Your task to perform on an android device: Go to wifi settings Image 0: 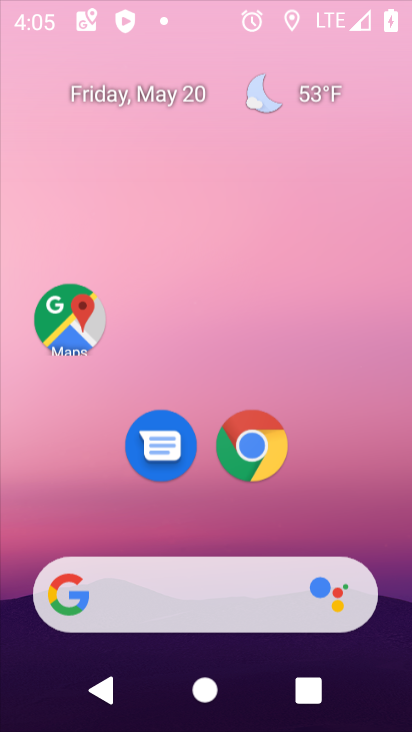
Step 0: click (272, 439)
Your task to perform on an android device: Go to wifi settings Image 1: 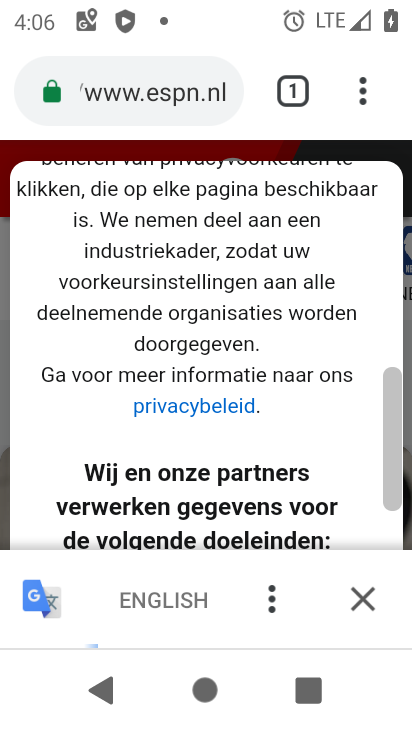
Step 1: click (365, 91)
Your task to perform on an android device: Go to wifi settings Image 2: 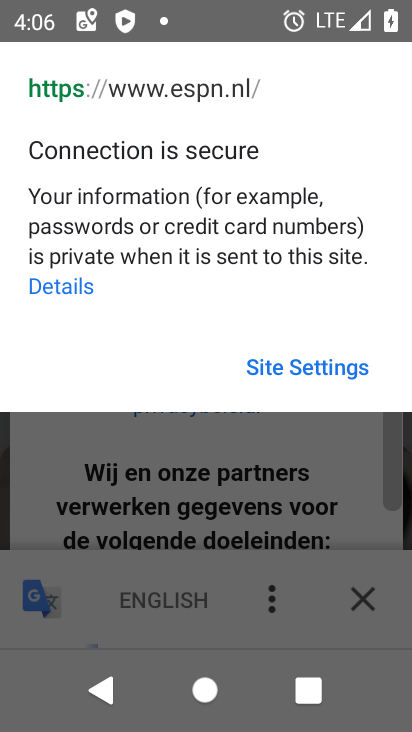
Step 2: press home button
Your task to perform on an android device: Go to wifi settings Image 3: 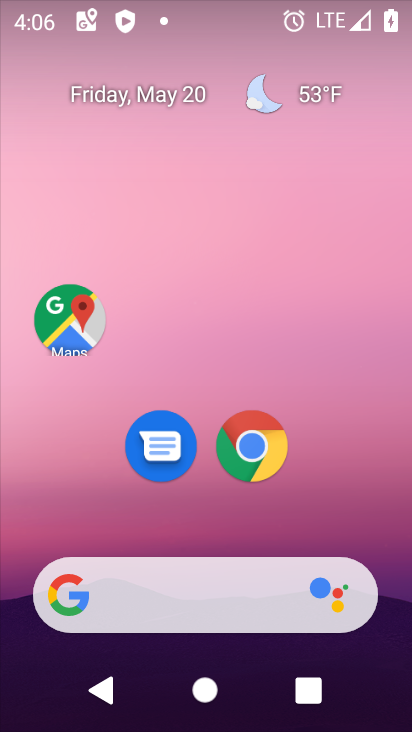
Step 3: drag from (373, 511) to (354, 91)
Your task to perform on an android device: Go to wifi settings Image 4: 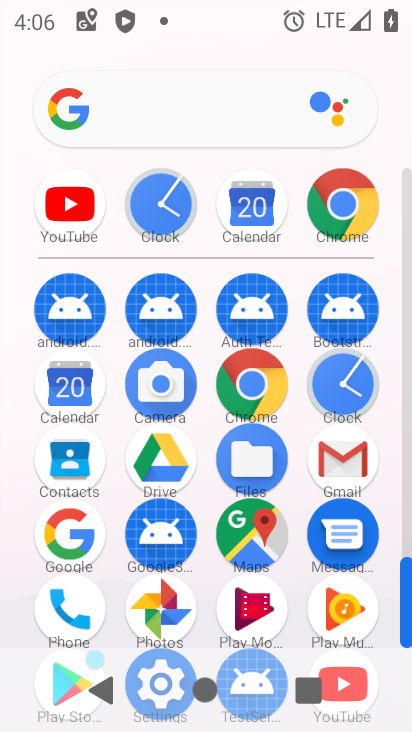
Step 4: drag from (406, 489) to (371, 151)
Your task to perform on an android device: Go to wifi settings Image 5: 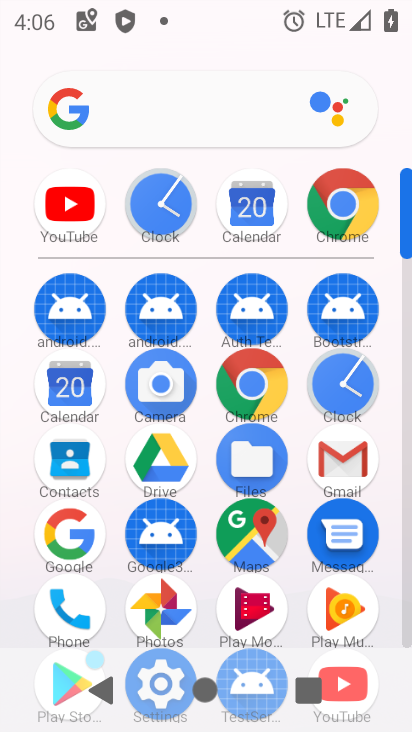
Step 5: drag from (380, 481) to (357, 162)
Your task to perform on an android device: Go to wifi settings Image 6: 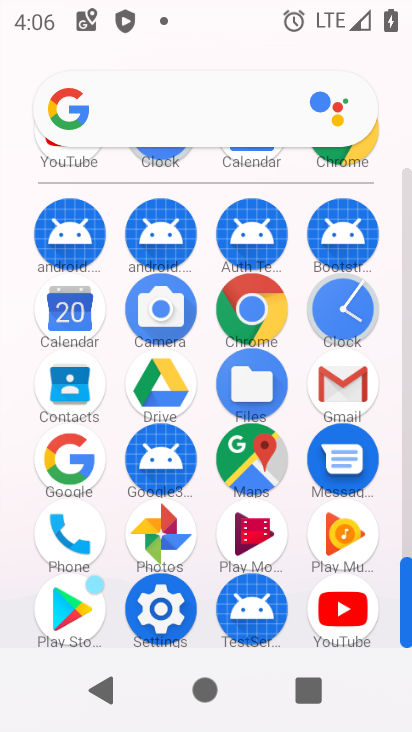
Step 6: click (141, 611)
Your task to perform on an android device: Go to wifi settings Image 7: 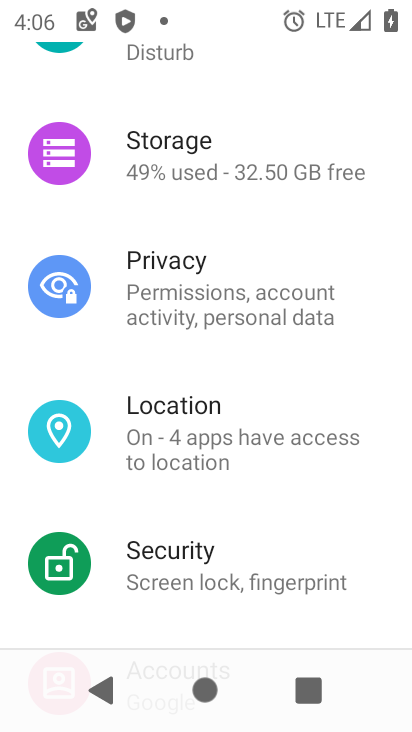
Step 7: drag from (255, 126) to (254, 553)
Your task to perform on an android device: Go to wifi settings Image 8: 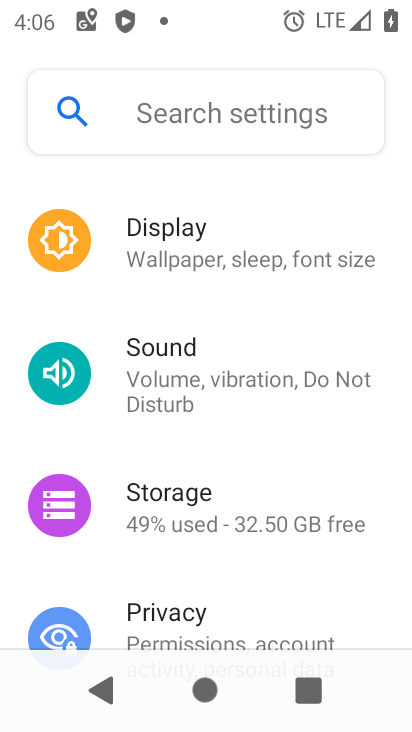
Step 8: drag from (255, 173) to (298, 574)
Your task to perform on an android device: Go to wifi settings Image 9: 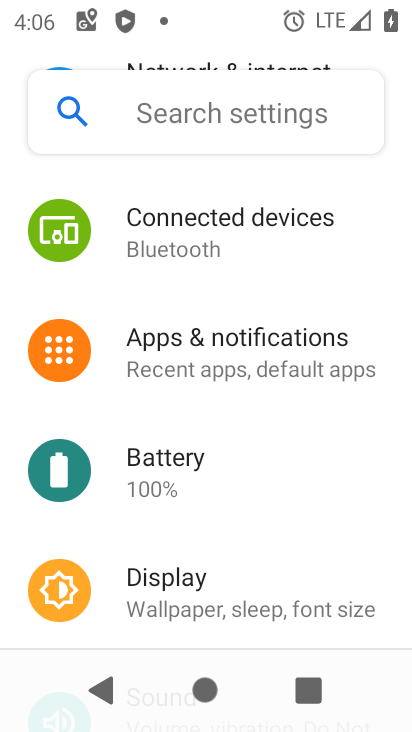
Step 9: drag from (259, 177) to (246, 594)
Your task to perform on an android device: Go to wifi settings Image 10: 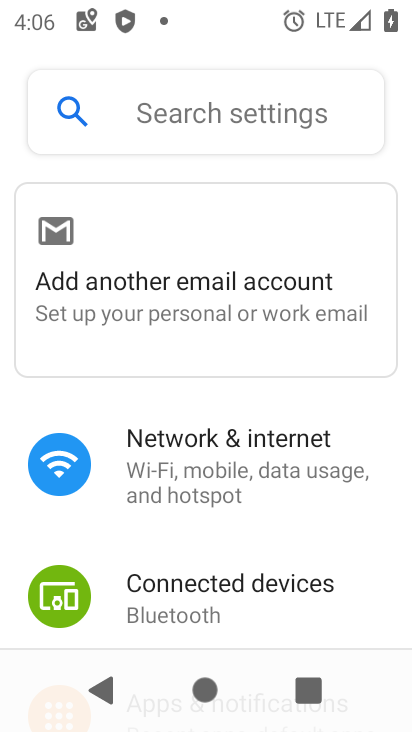
Step 10: click (157, 470)
Your task to perform on an android device: Go to wifi settings Image 11: 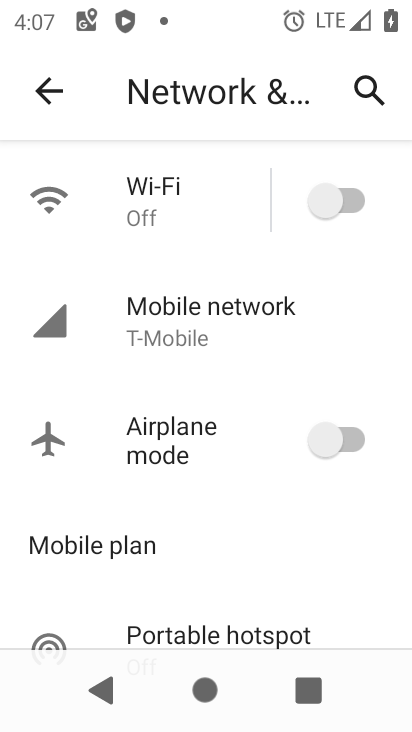
Step 11: click (201, 199)
Your task to perform on an android device: Go to wifi settings Image 12: 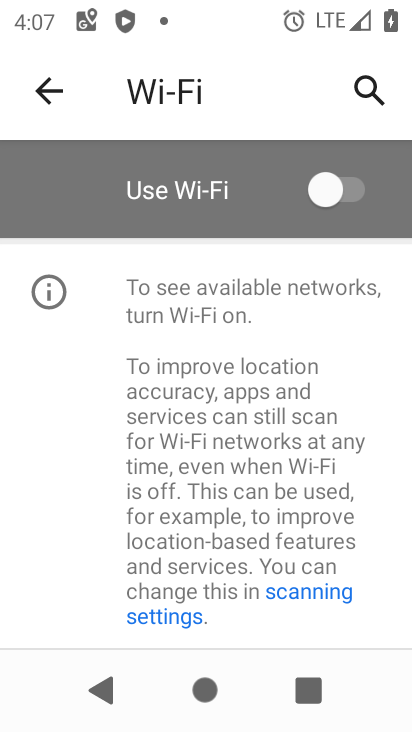
Step 12: task complete